Your task to perform on an android device: Search for acer nitro on bestbuy, select the first entry, add it to the cart, then select checkout. Image 0: 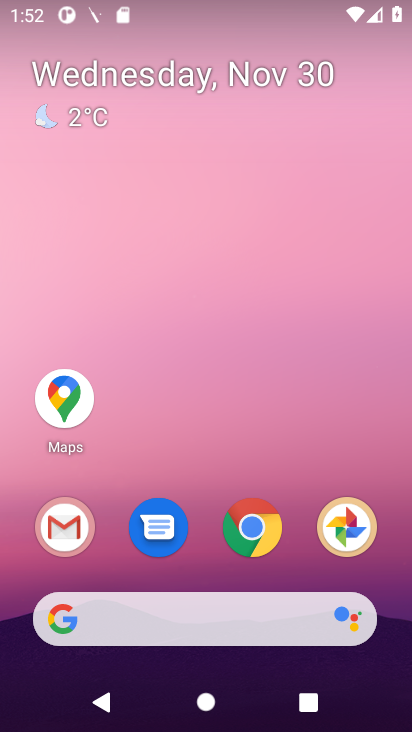
Step 0: click (247, 547)
Your task to perform on an android device: Search for acer nitro on bestbuy, select the first entry, add it to the cart, then select checkout. Image 1: 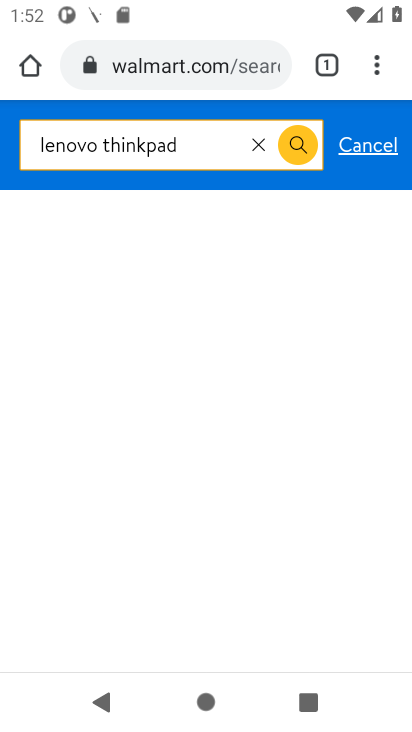
Step 1: click (196, 83)
Your task to perform on an android device: Search for acer nitro on bestbuy, select the first entry, add it to the cart, then select checkout. Image 2: 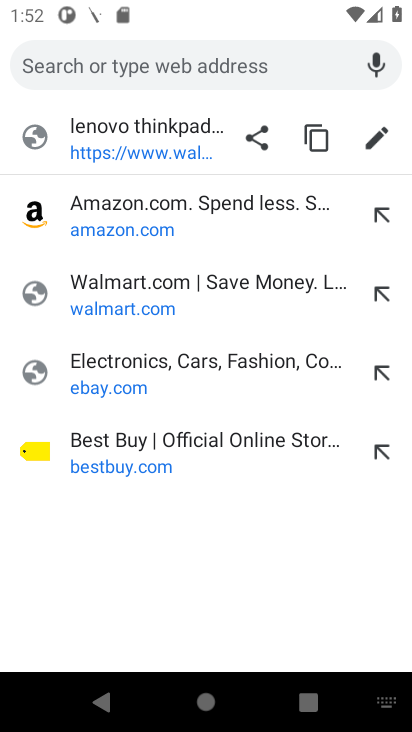
Step 2: type "bestbuy"
Your task to perform on an android device: Search for acer nitro on bestbuy, select the first entry, add it to the cart, then select checkout. Image 3: 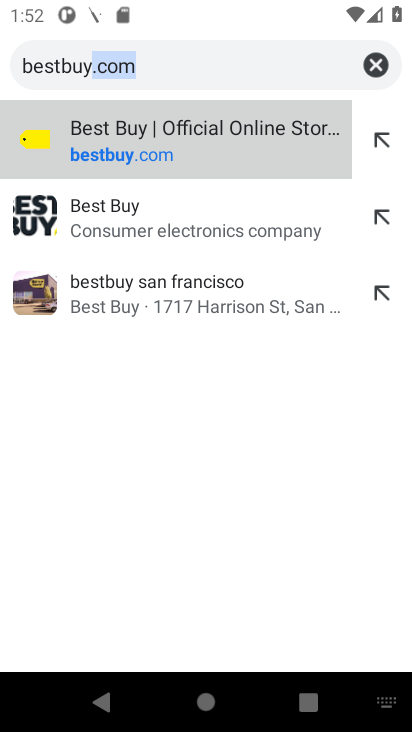
Step 3: click (106, 112)
Your task to perform on an android device: Search for acer nitro on bestbuy, select the first entry, add it to the cart, then select checkout. Image 4: 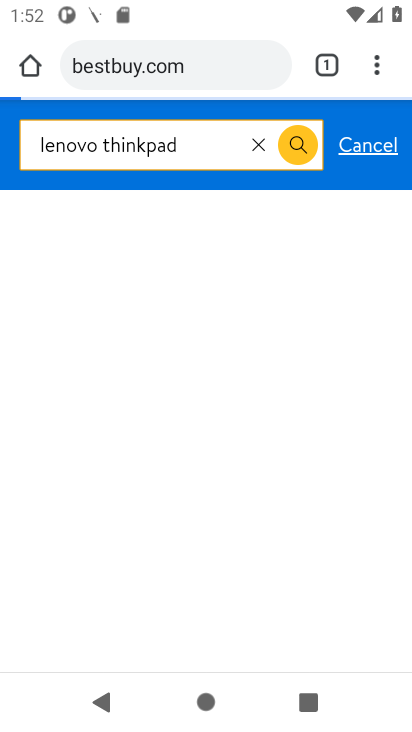
Step 4: click (257, 153)
Your task to perform on an android device: Search for acer nitro on bestbuy, select the first entry, add it to the cart, then select checkout. Image 5: 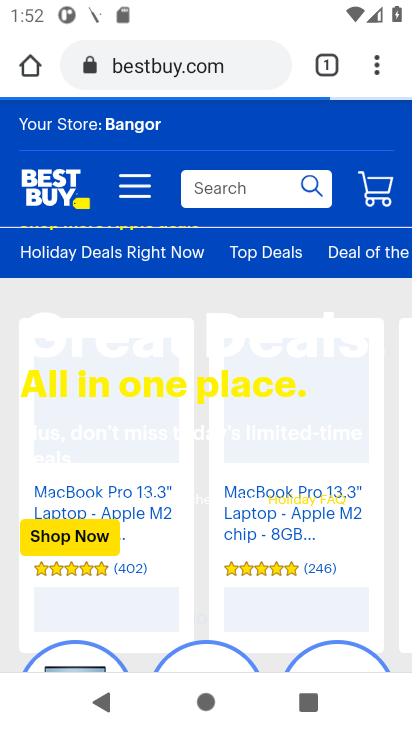
Step 5: click (251, 203)
Your task to perform on an android device: Search for acer nitro on bestbuy, select the first entry, add it to the cart, then select checkout. Image 6: 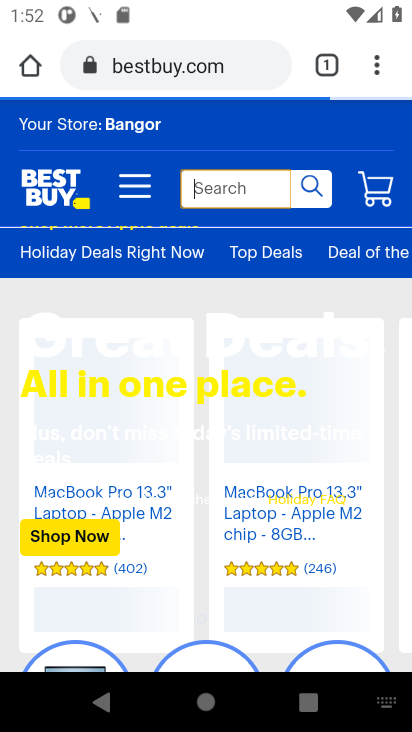
Step 6: click (251, 203)
Your task to perform on an android device: Search for acer nitro on bestbuy, select the first entry, add it to the cart, then select checkout. Image 7: 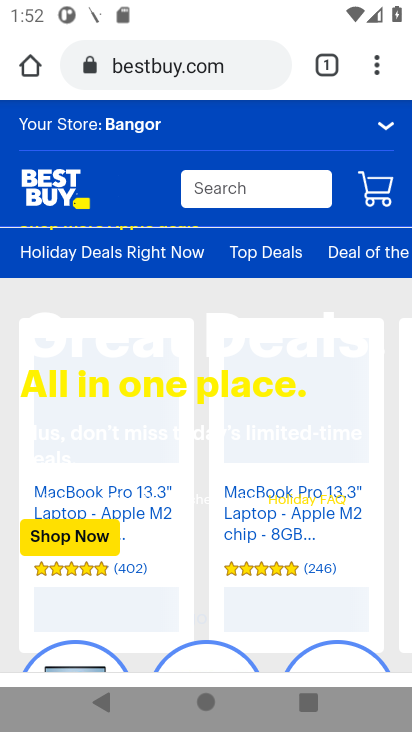
Step 7: type "acer nitro"
Your task to perform on an android device: Search for acer nitro on bestbuy, select the first entry, add it to the cart, then select checkout. Image 8: 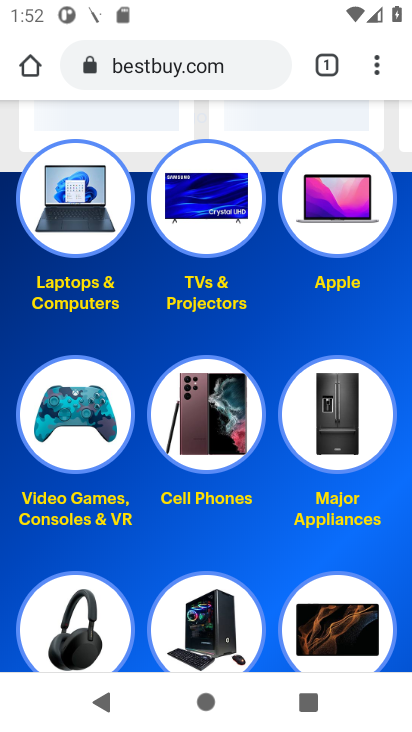
Step 8: task complete